Your task to perform on an android device: What's on my calendar today? Image 0: 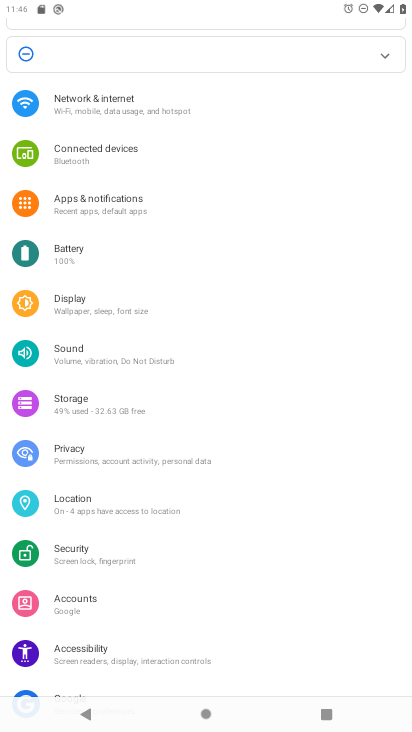
Step 0: press home button
Your task to perform on an android device: What's on my calendar today? Image 1: 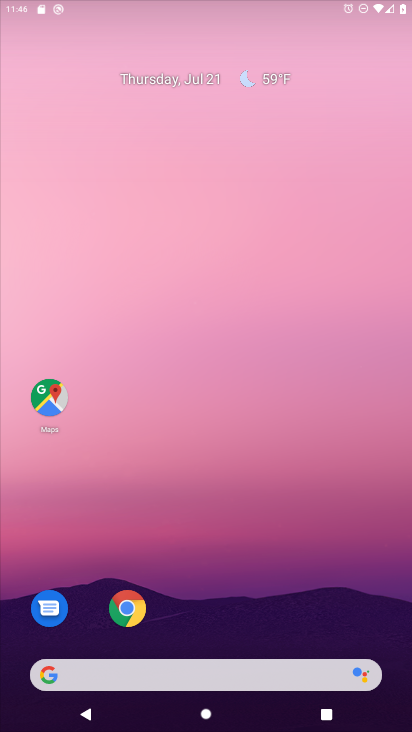
Step 1: drag from (390, 639) to (125, 4)
Your task to perform on an android device: What's on my calendar today? Image 2: 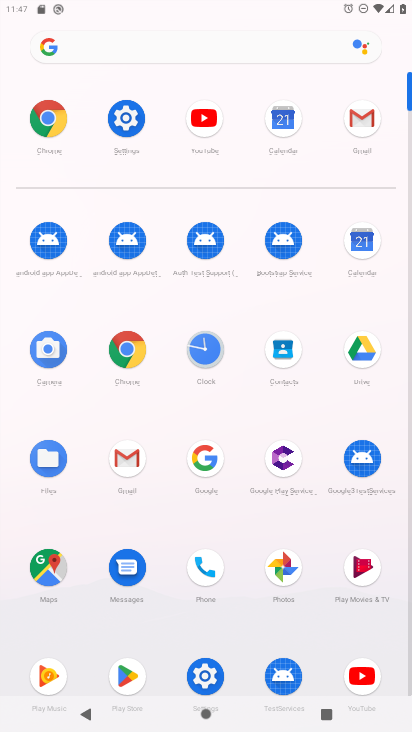
Step 2: click (371, 233)
Your task to perform on an android device: What's on my calendar today? Image 3: 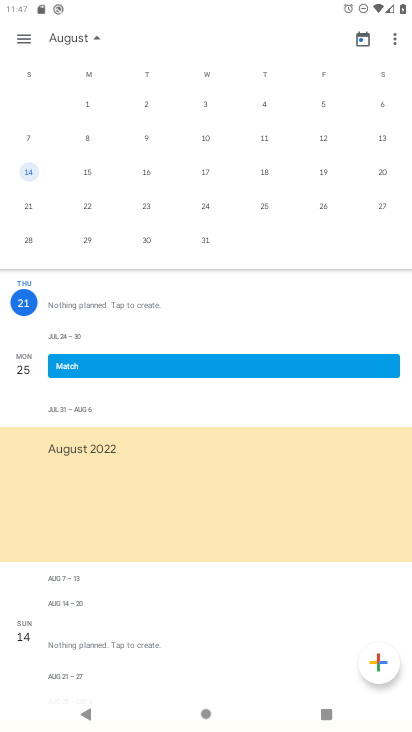
Step 3: task complete